Your task to perform on an android device: Clear all items from cart on amazon. Image 0: 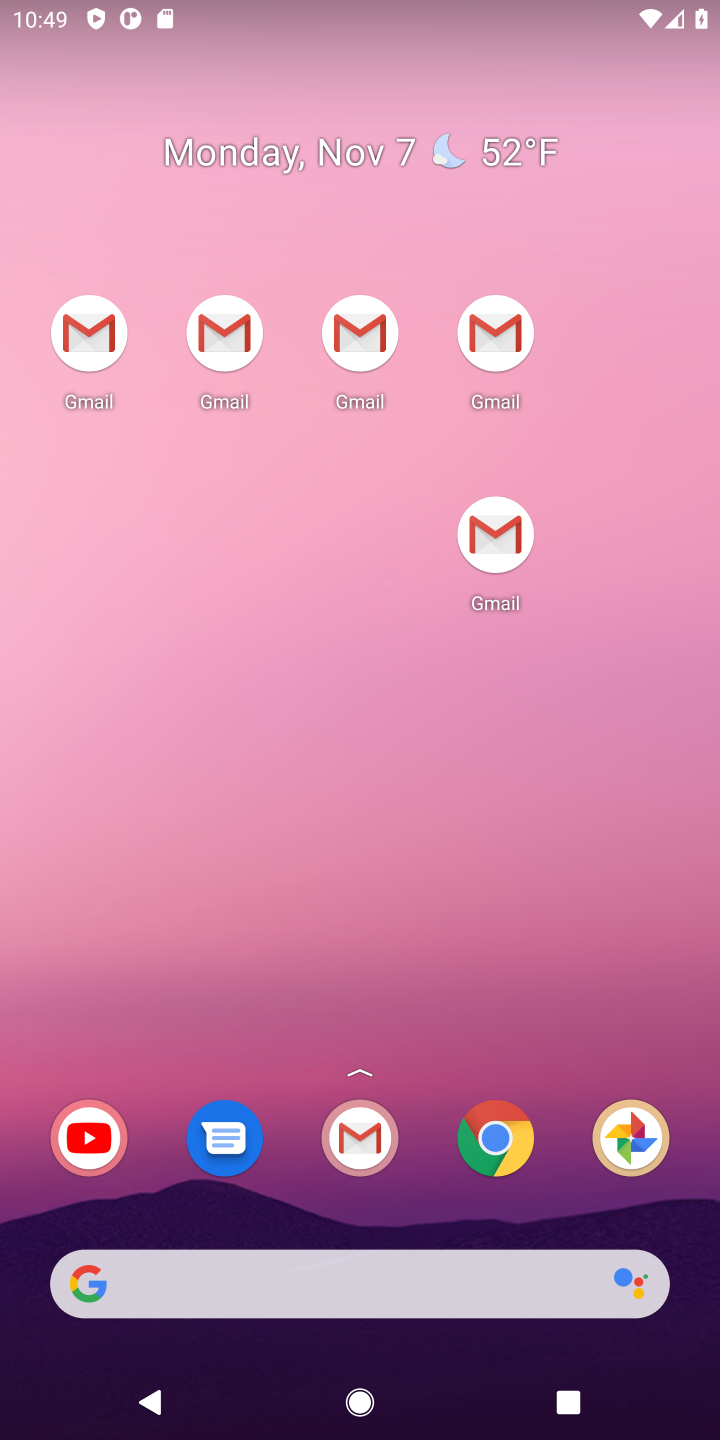
Step 0: drag from (406, 1190) to (459, 582)
Your task to perform on an android device: Clear all items from cart on amazon. Image 1: 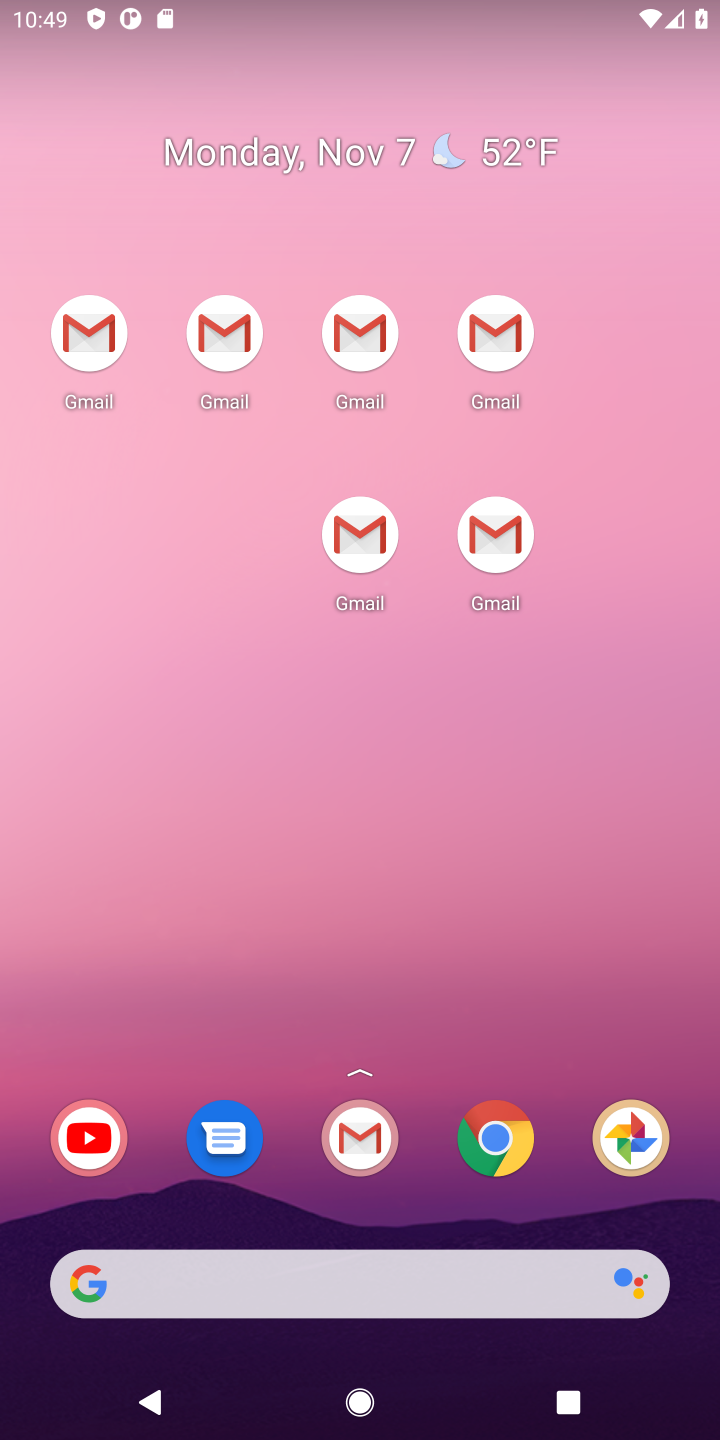
Step 1: drag from (445, 1223) to (609, 48)
Your task to perform on an android device: Clear all items from cart on amazon. Image 2: 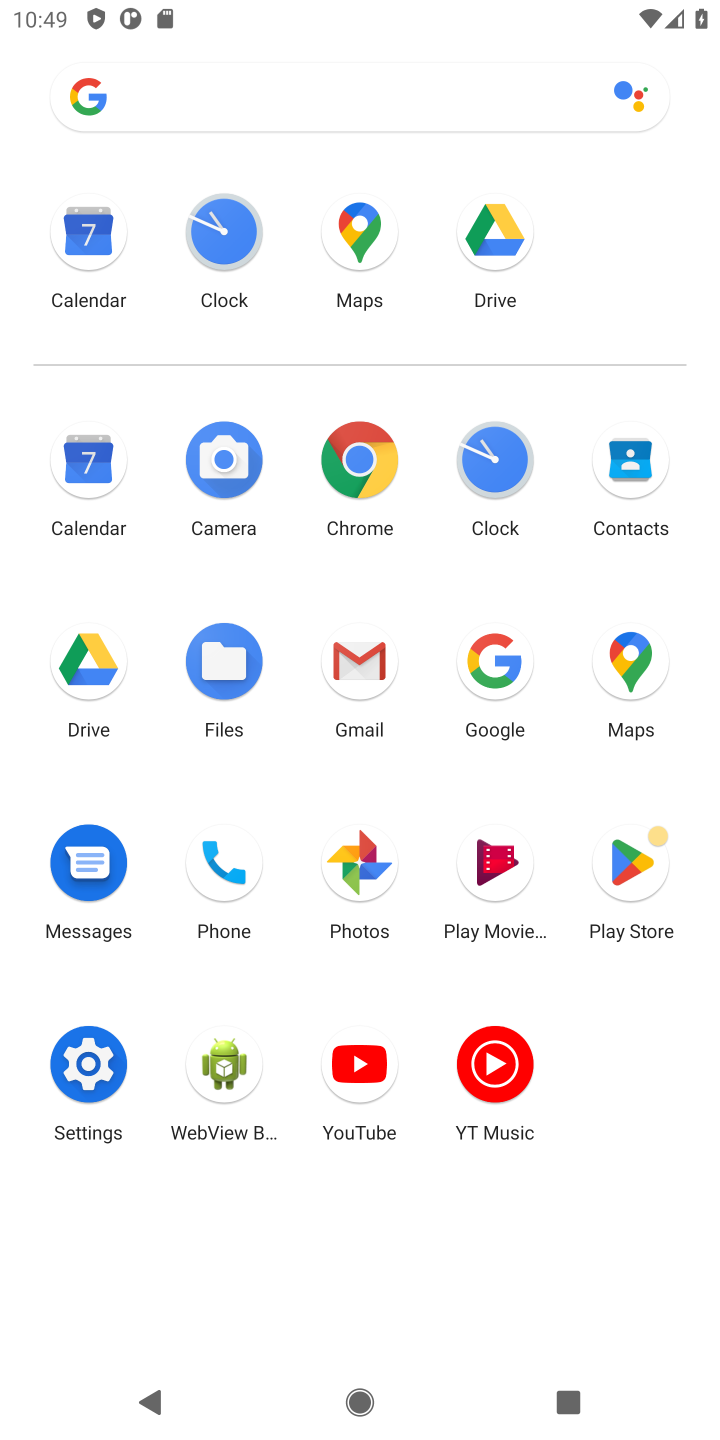
Step 2: click (512, 713)
Your task to perform on an android device: Clear all items from cart on amazon. Image 3: 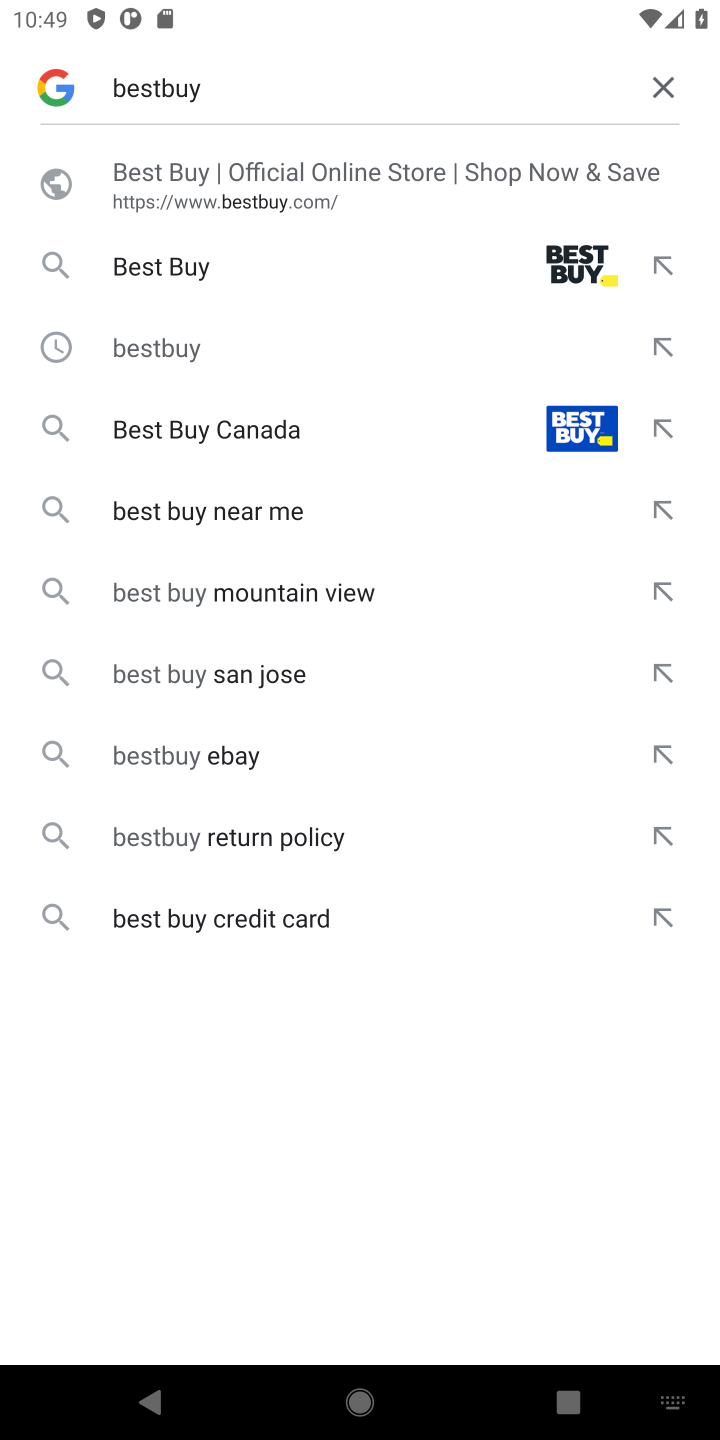
Step 3: click (669, 98)
Your task to perform on an android device: Clear all items from cart on amazon. Image 4: 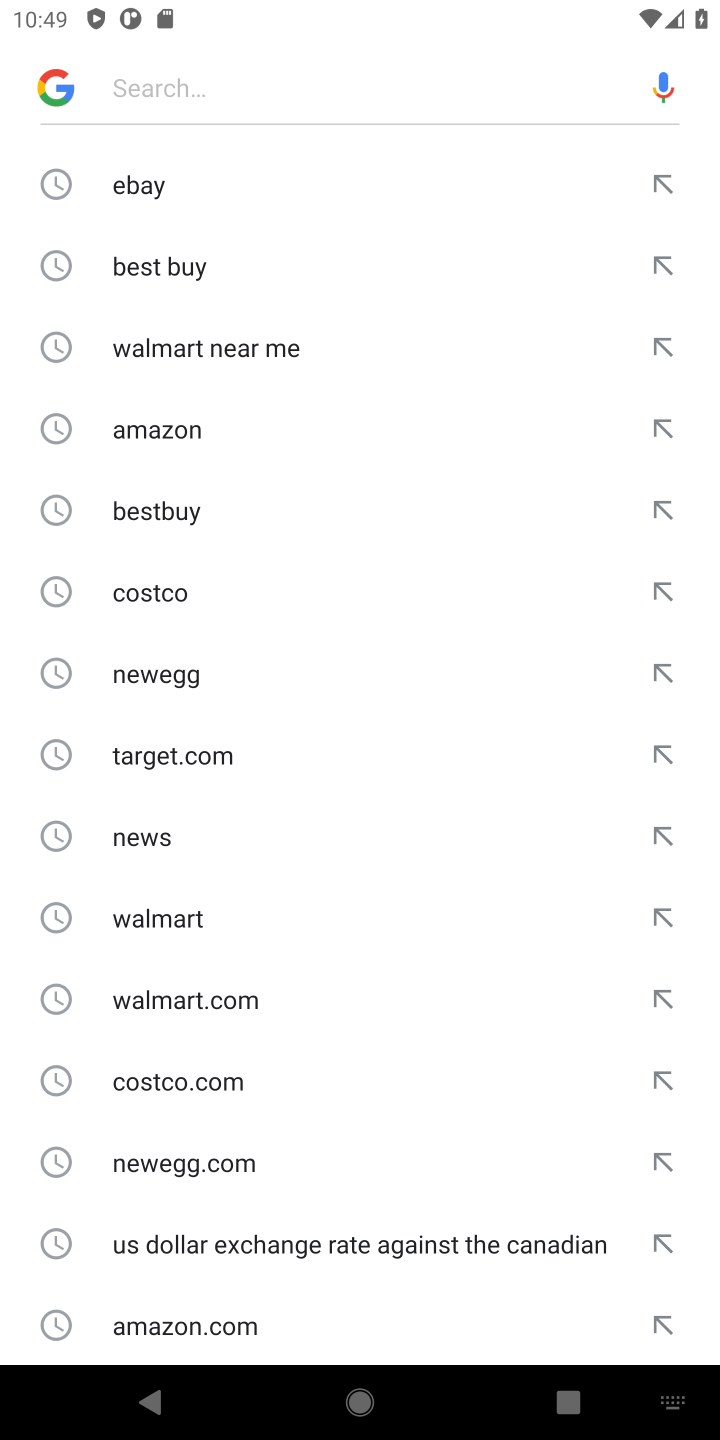
Step 4: click (229, 426)
Your task to perform on an android device: Clear all items from cart on amazon. Image 5: 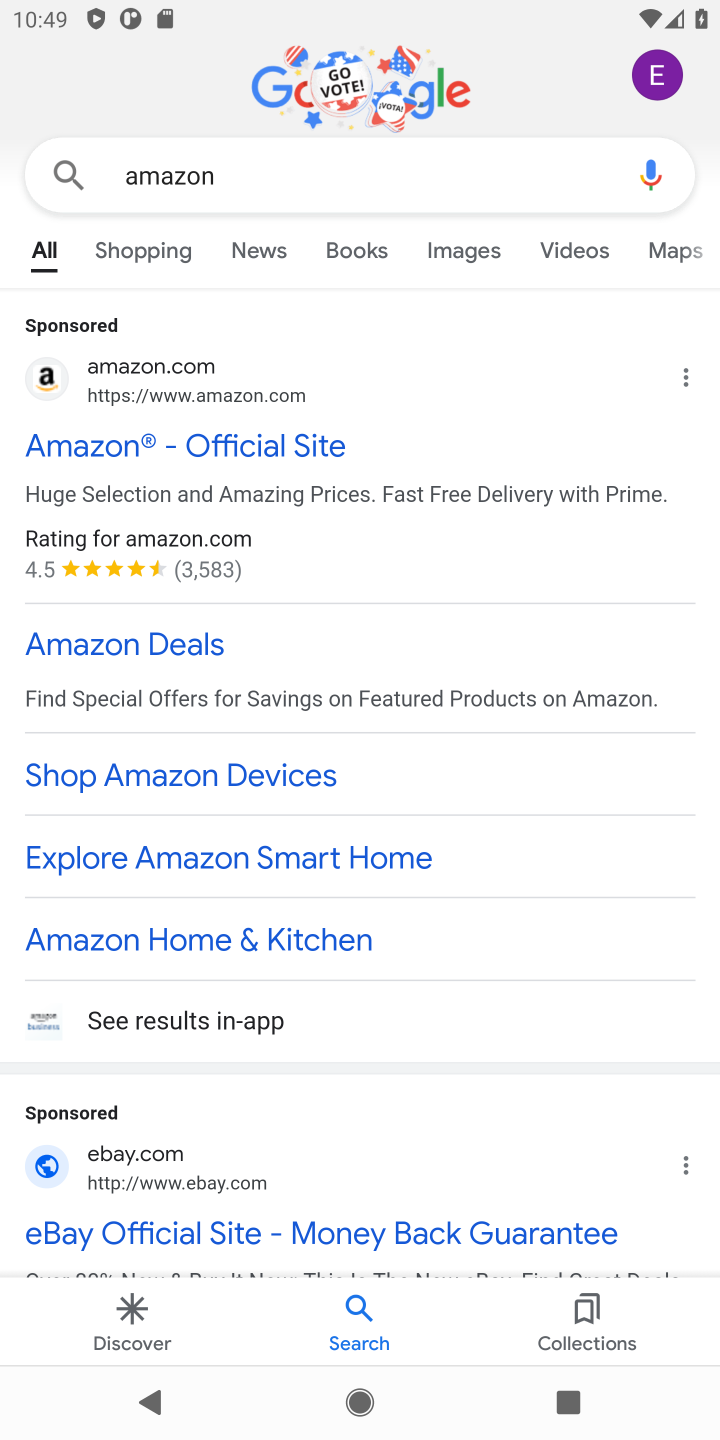
Step 5: click (229, 449)
Your task to perform on an android device: Clear all items from cart on amazon. Image 6: 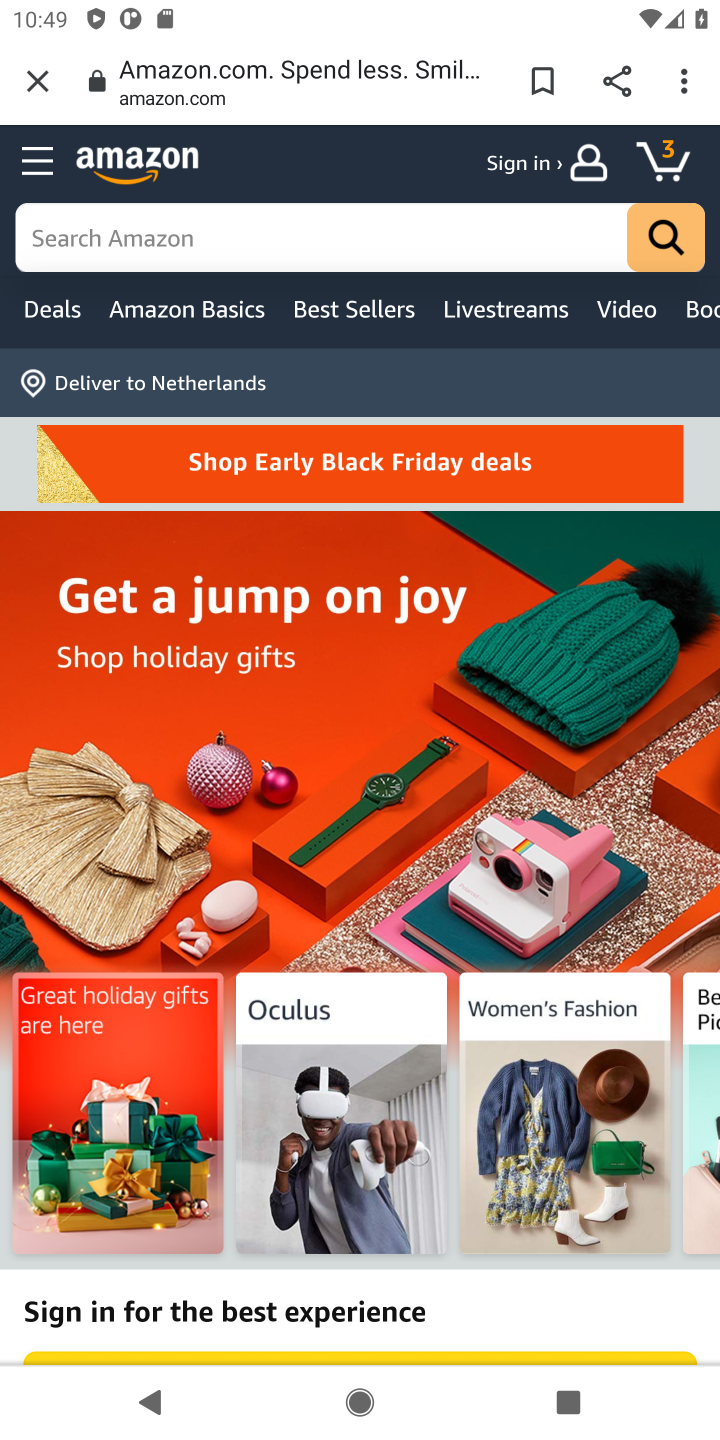
Step 6: click (348, 238)
Your task to perform on an android device: Clear all items from cart on amazon. Image 7: 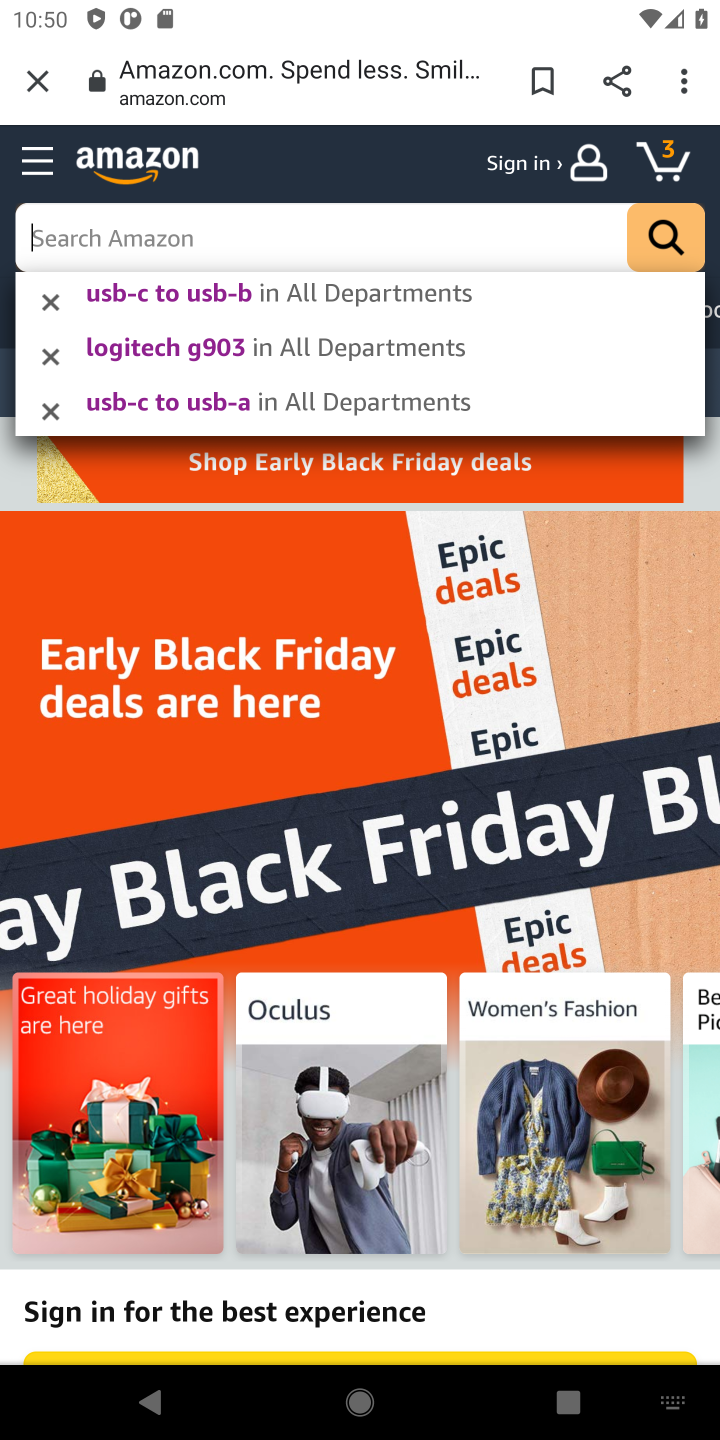
Step 7: click (681, 158)
Your task to perform on an android device: Clear all items from cart on amazon. Image 8: 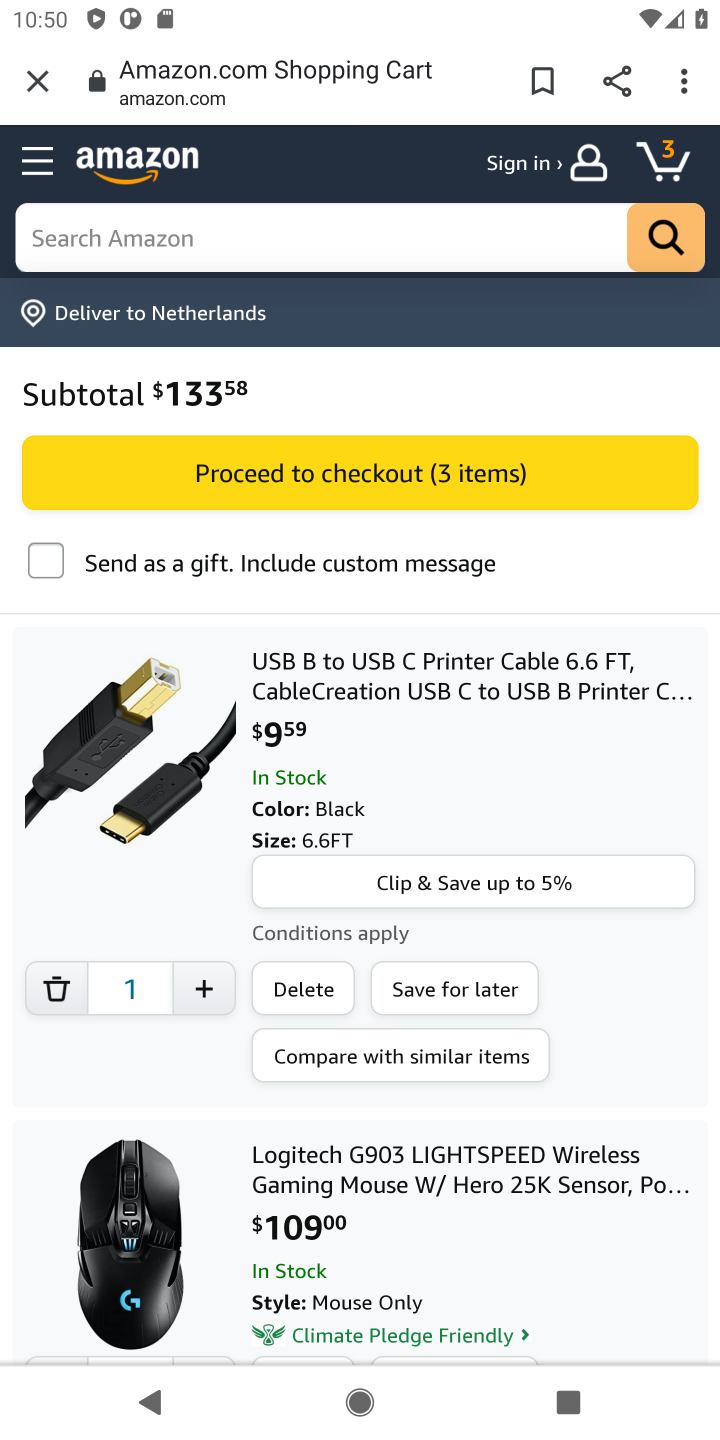
Step 8: click (300, 996)
Your task to perform on an android device: Clear all items from cart on amazon. Image 9: 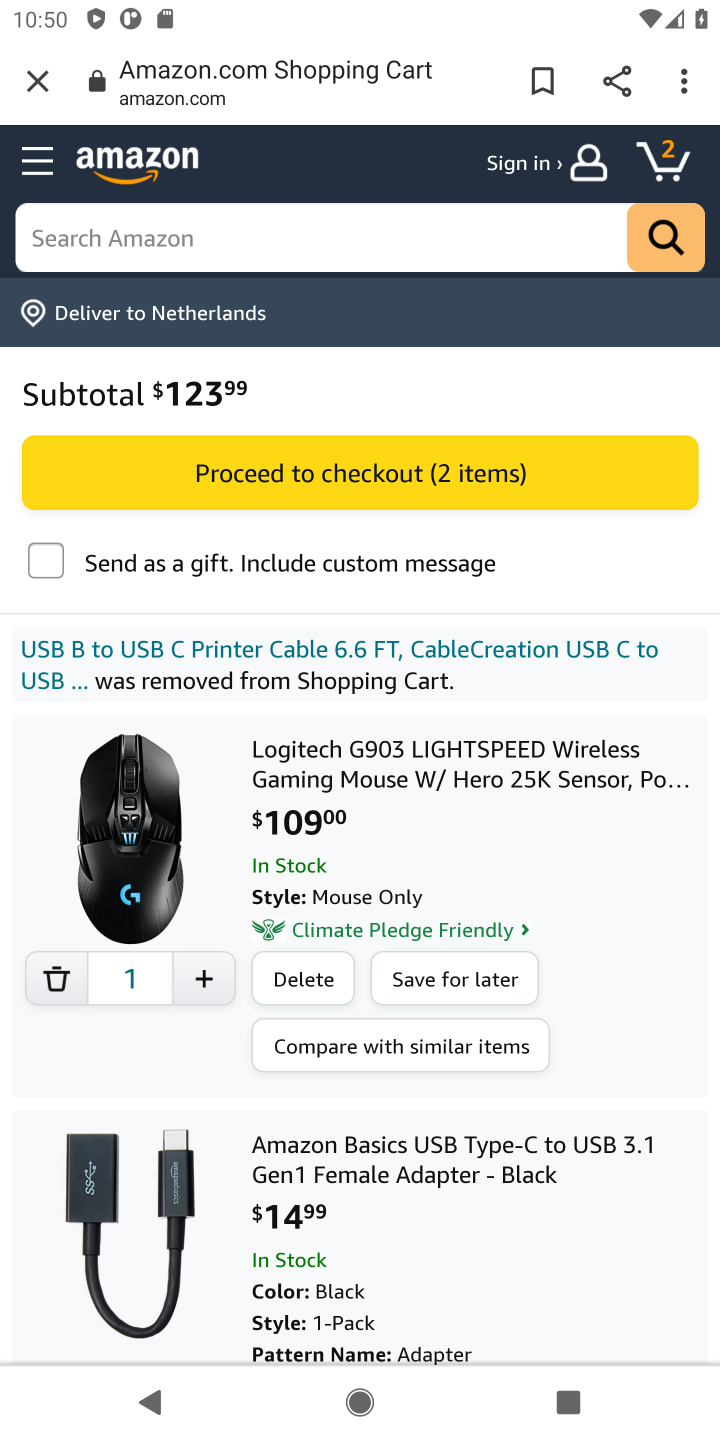
Step 9: click (300, 996)
Your task to perform on an android device: Clear all items from cart on amazon. Image 10: 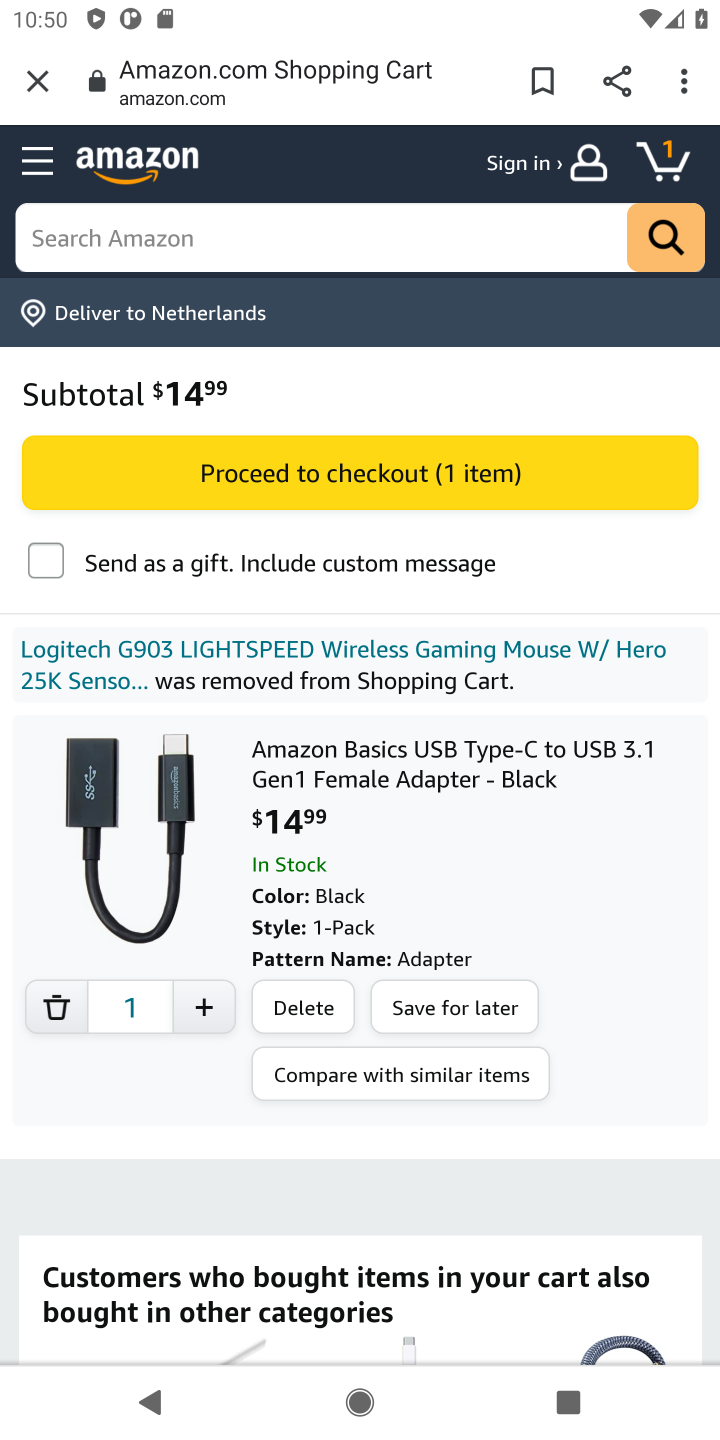
Step 10: click (300, 996)
Your task to perform on an android device: Clear all items from cart on amazon. Image 11: 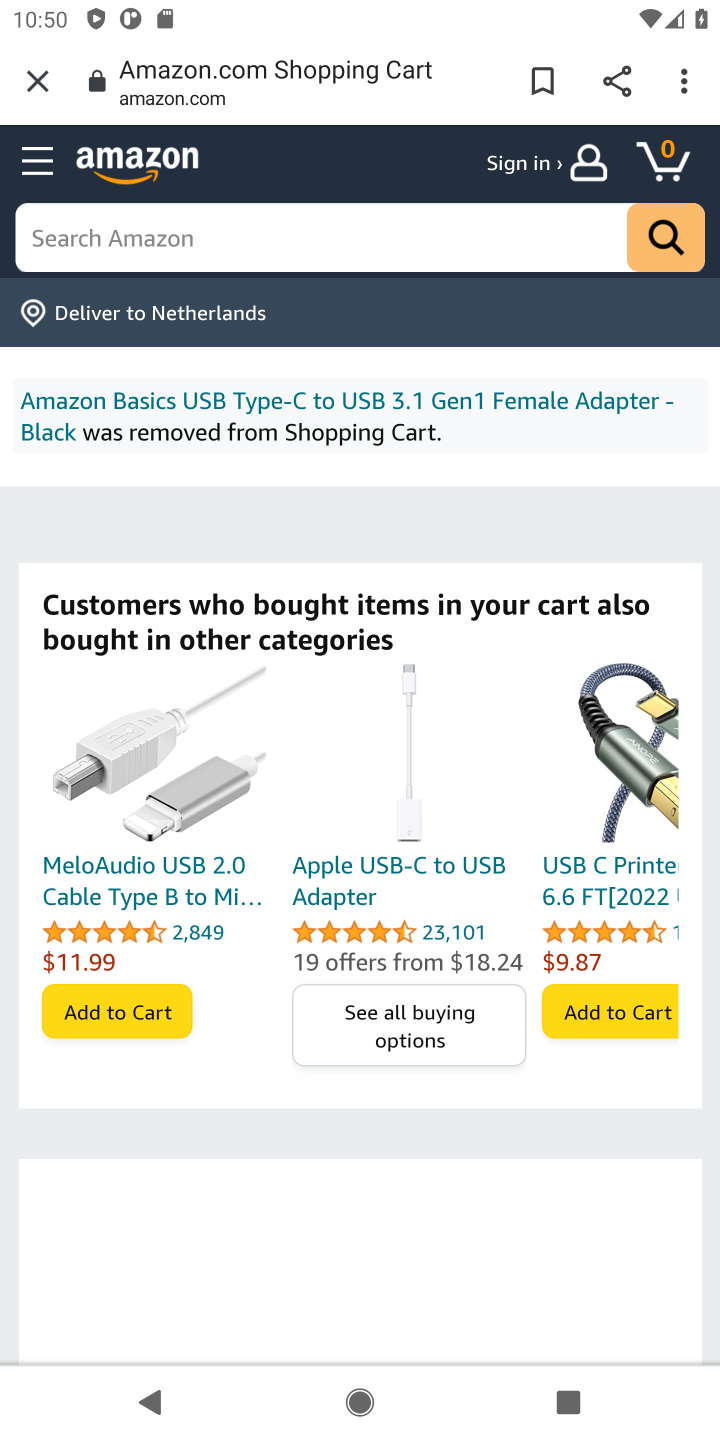
Step 11: task complete